Your task to perform on an android device: toggle show notifications on the lock screen Image 0: 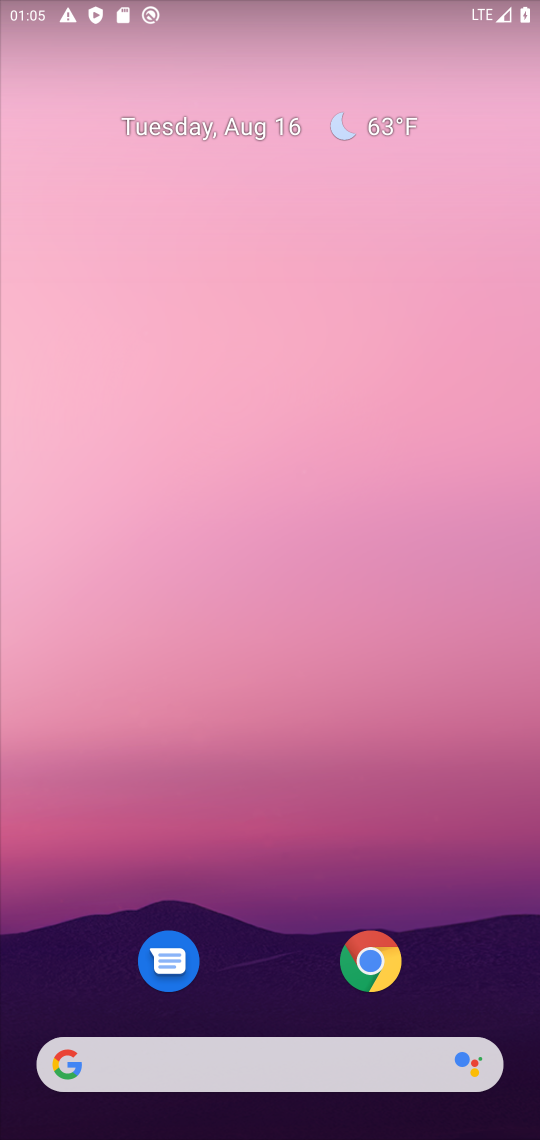
Step 0: press home button
Your task to perform on an android device: toggle show notifications on the lock screen Image 1: 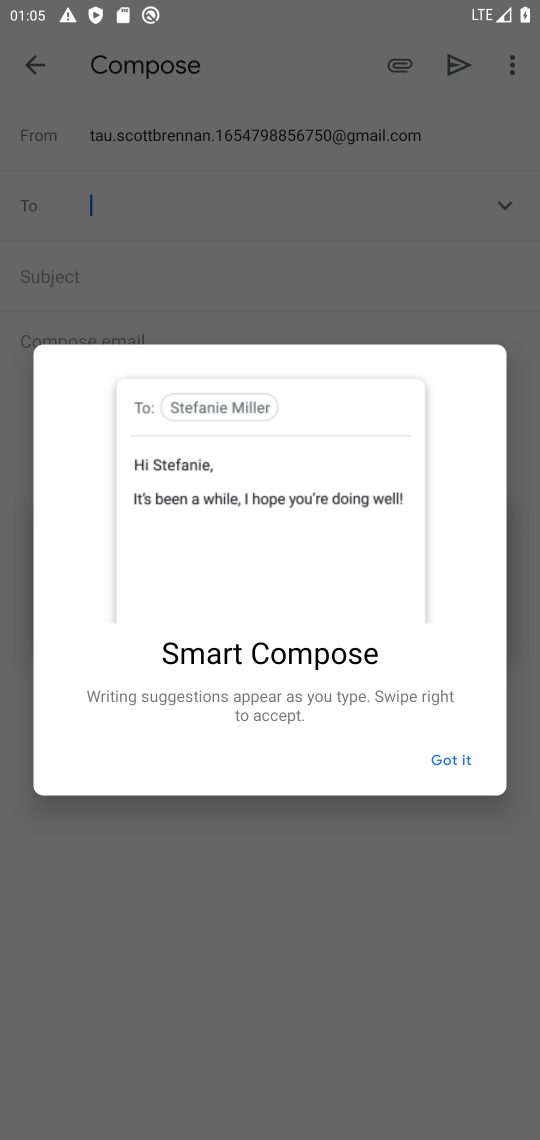
Step 1: click (266, 183)
Your task to perform on an android device: toggle show notifications on the lock screen Image 2: 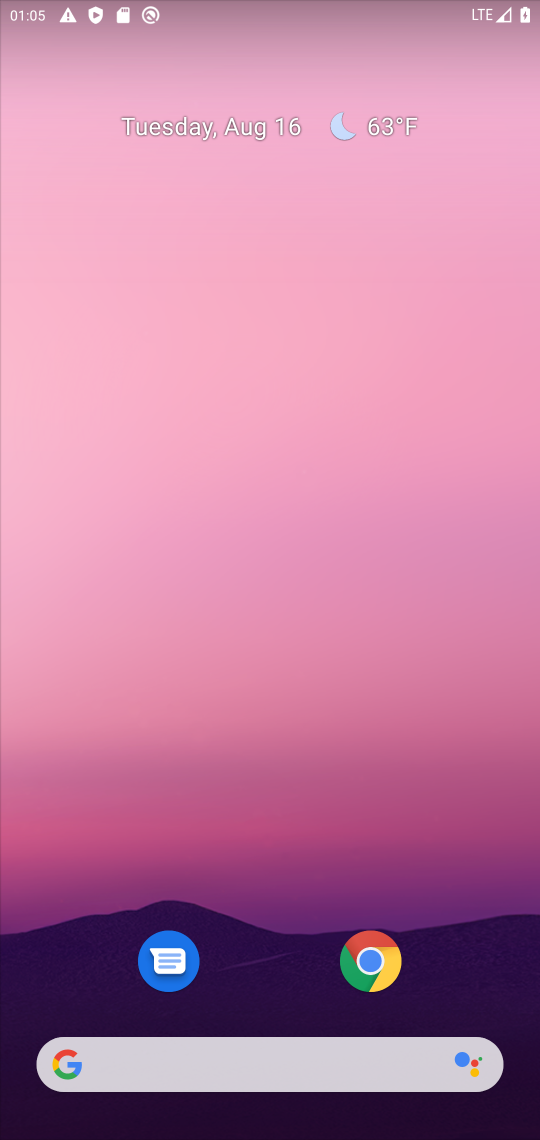
Step 2: press home button
Your task to perform on an android device: toggle show notifications on the lock screen Image 3: 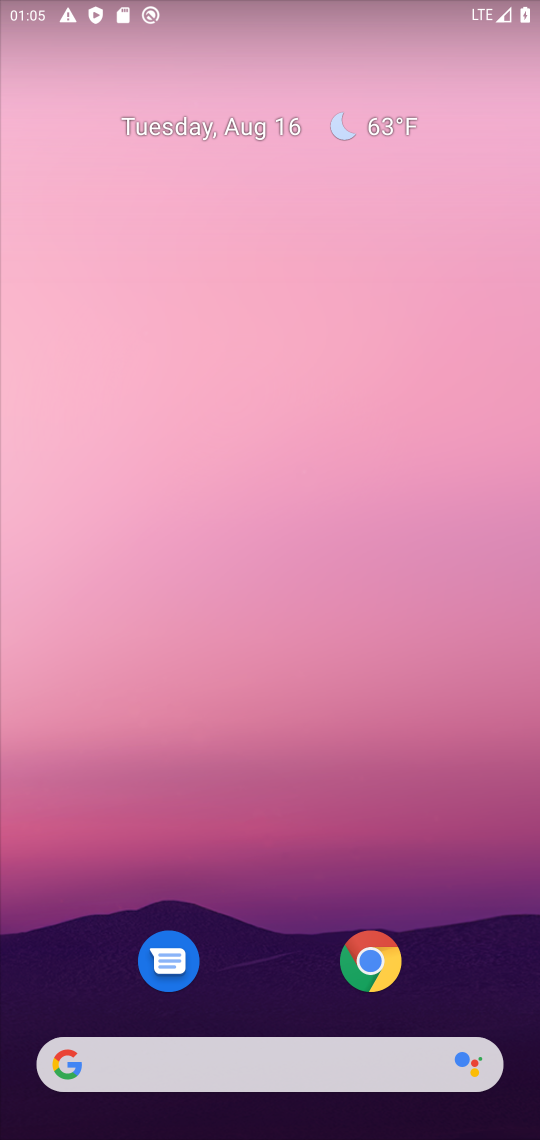
Step 3: drag from (233, 952) to (173, 124)
Your task to perform on an android device: toggle show notifications on the lock screen Image 4: 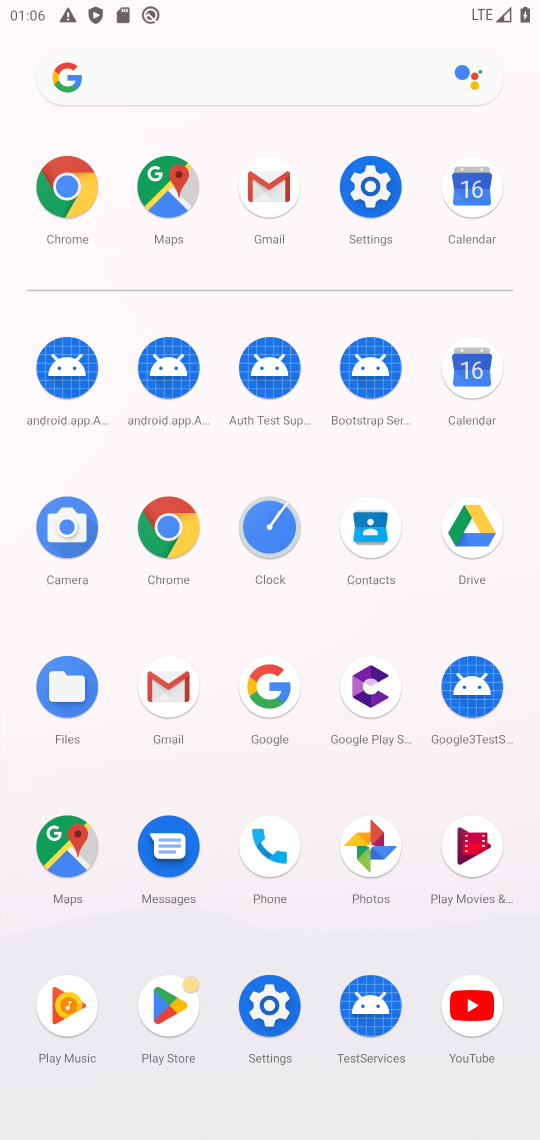
Step 4: click (261, 1011)
Your task to perform on an android device: toggle show notifications on the lock screen Image 5: 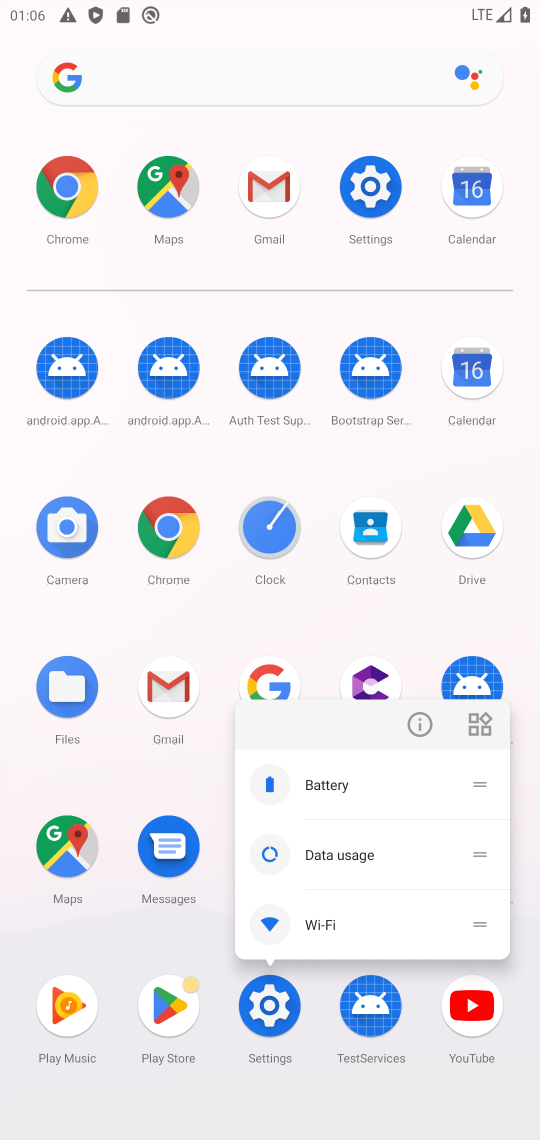
Step 5: click (269, 1033)
Your task to perform on an android device: toggle show notifications on the lock screen Image 6: 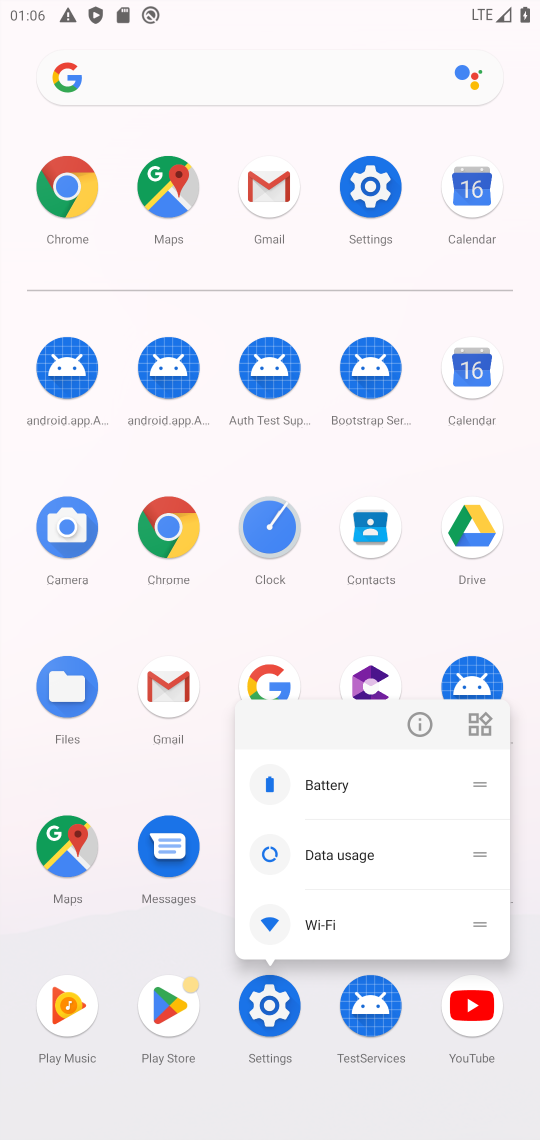
Step 6: click (269, 1048)
Your task to perform on an android device: toggle show notifications on the lock screen Image 7: 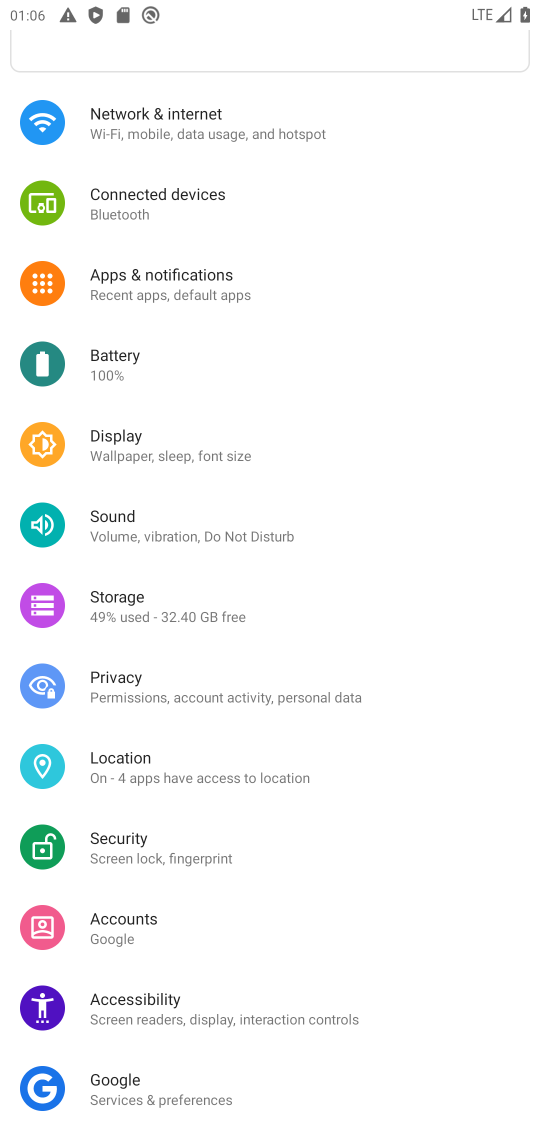
Step 7: click (141, 301)
Your task to perform on an android device: toggle show notifications on the lock screen Image 8: 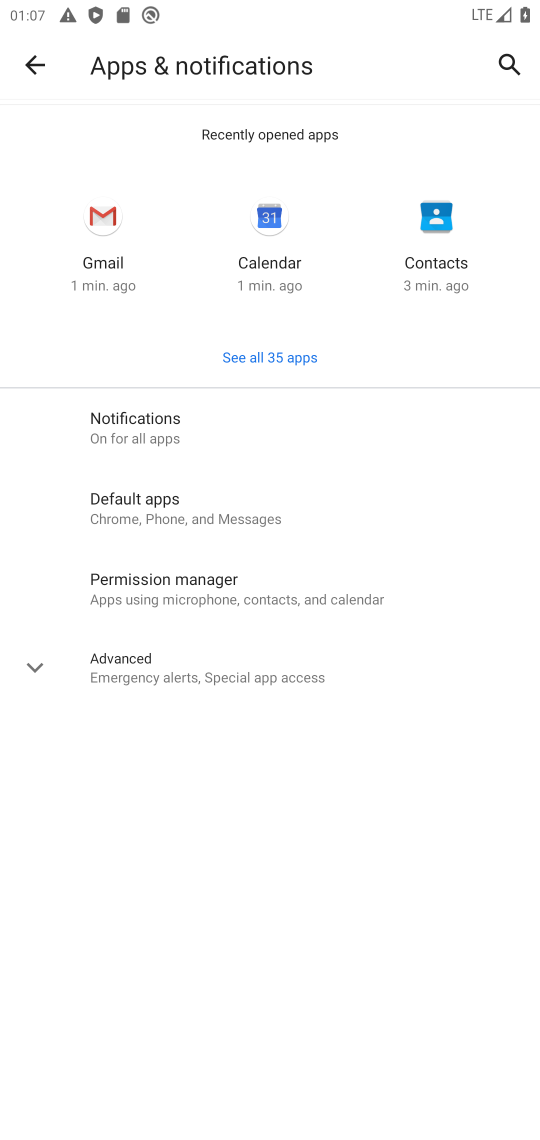
Step 8: click (146, 447)
Your task to perform on an android device: toggle show notifications on the lock screen Image 9: 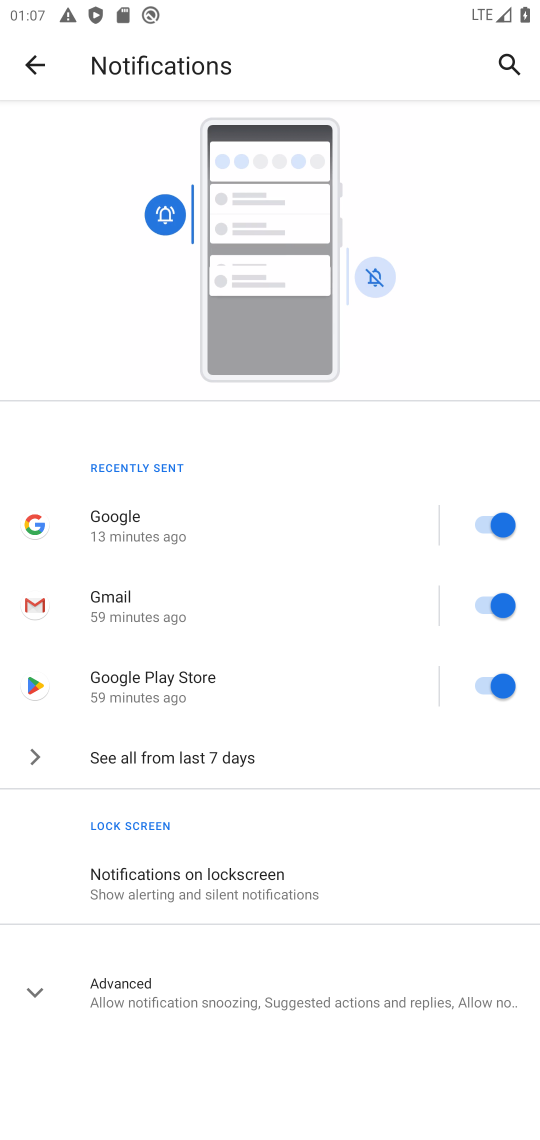
Step 9: click (278, 889)
Your task to perform on an android device: toggle show notifications on the lock screen Image 10: 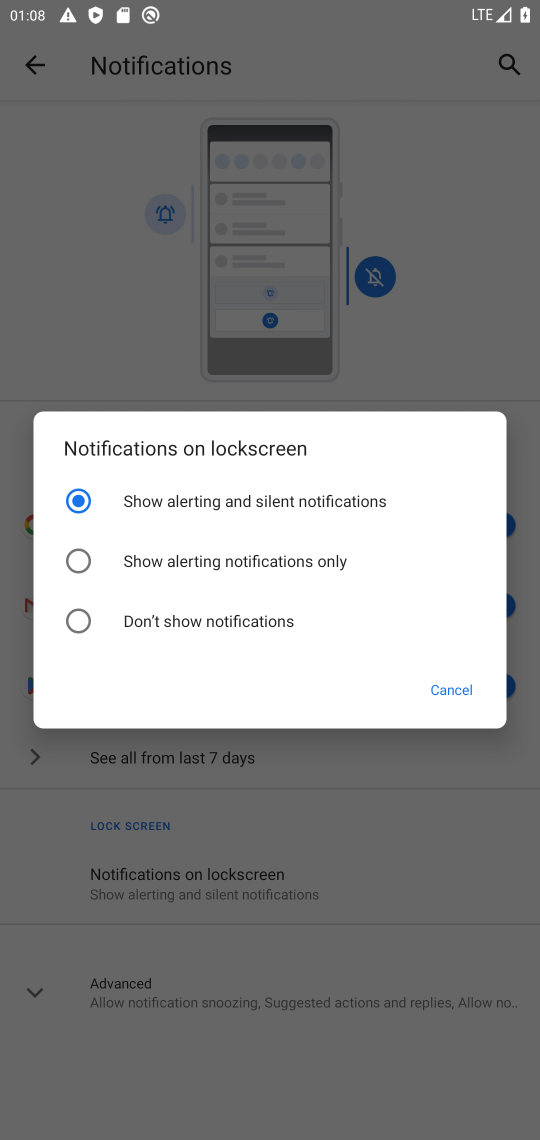
Step 10: click (232, 571)
Your task to perform on an android device: toggle show notifications on the lock screen Image 11: 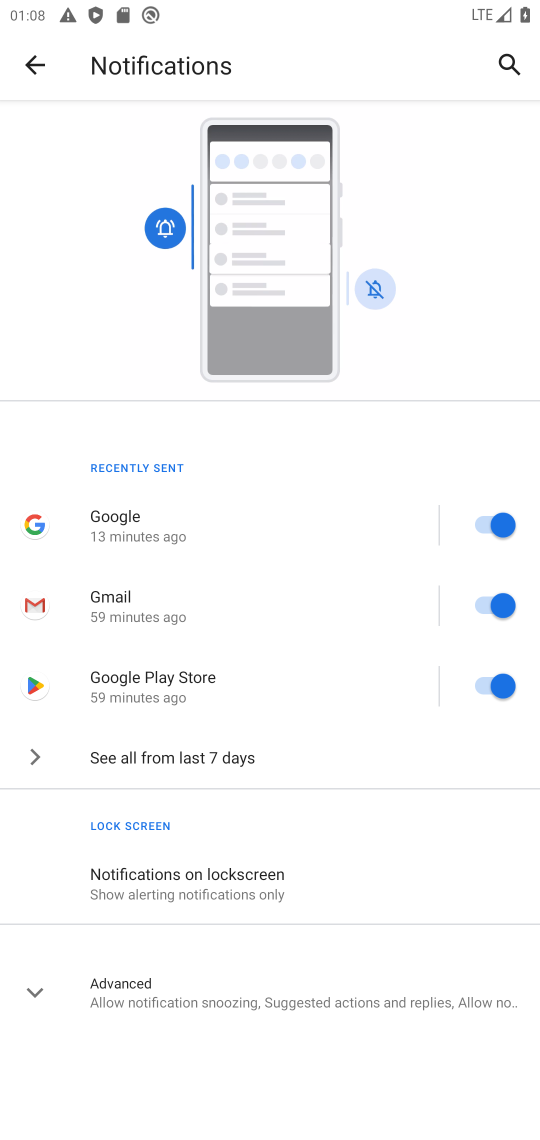
Step 11: task complete